Your task to perform on an android device: Turn on the flashlight Image 0: 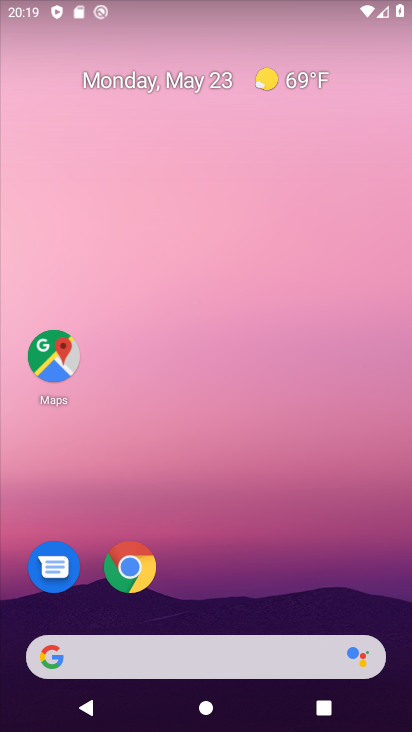
Step 0: drag from (216, 590) to (273, 38)
Your task to perform on an android device: Turn on the flashlight Image 1: 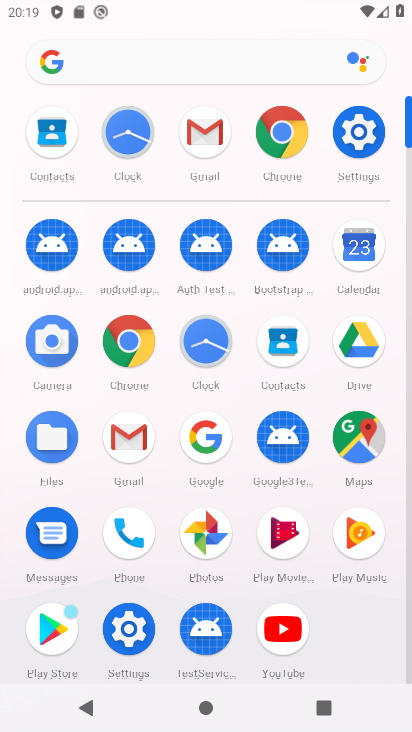
Step 1: click (362, 151)
Your task to perform on an android device: Turn on the flashlight Image 2: 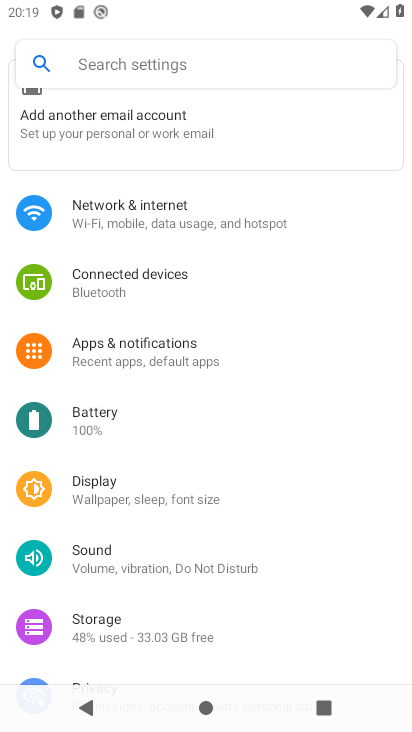
Step 2: click (206, 63)
Your task to perform on an android device: Turn on the flashlight Image 3: 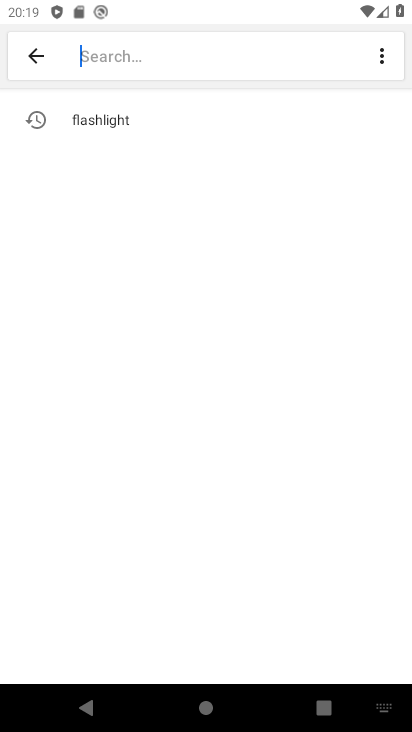
Step 3: type "flashlight"
Your task to perform on an android device: Turn on the flashlight Image 4: 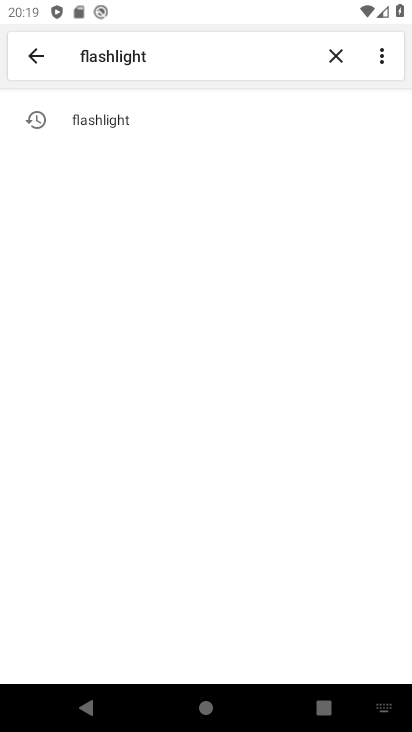
Step 4: click (107, 130)
Your task to perform on an android device: Turn on the flashlight Image 5: 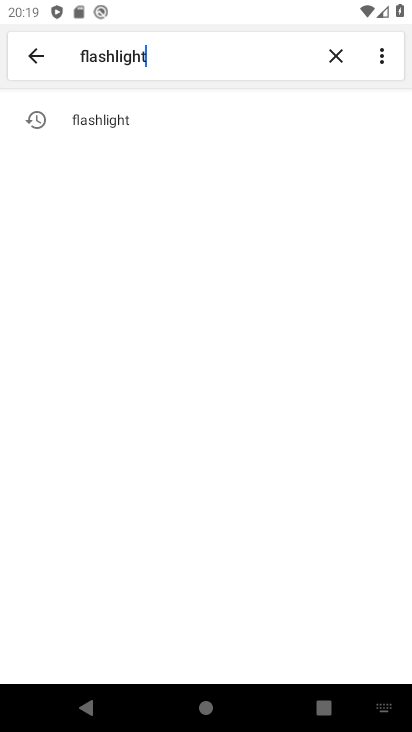
Step 5: click (97, 138)
Your task to perform on an android device: Turn on the flashlight Image 6: 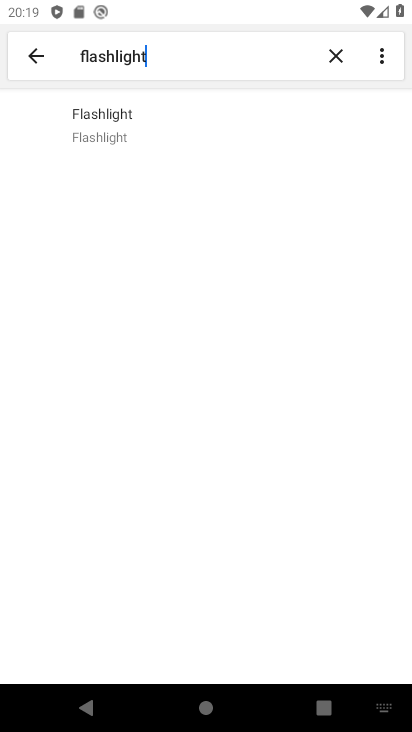
Step 6: task complete